Your task to perform on an android device: What's the weather? Image 0: 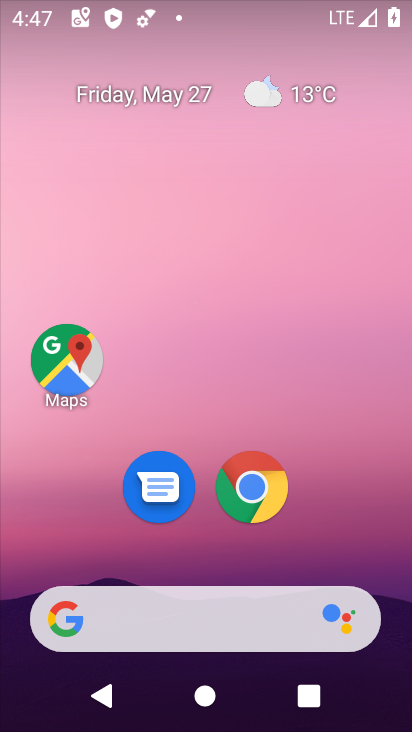
Step 0: click (348, 534)
Your task to perform on an android device: What's the weather? Image 1: 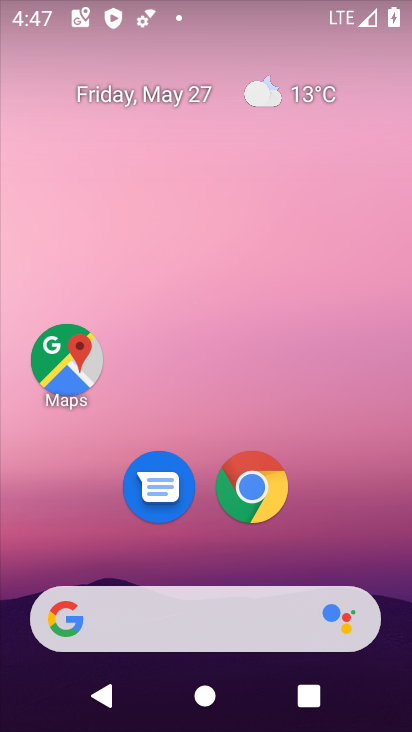
Step 1: click (313, 90)
Your task to perform on an android device: What's the weather? Image 2: 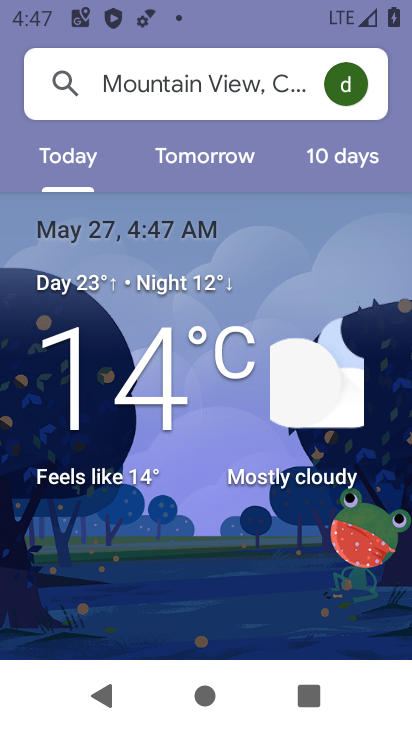
Step 2: press home button
Your task to perform on an android device: What's the weather? Image 3: 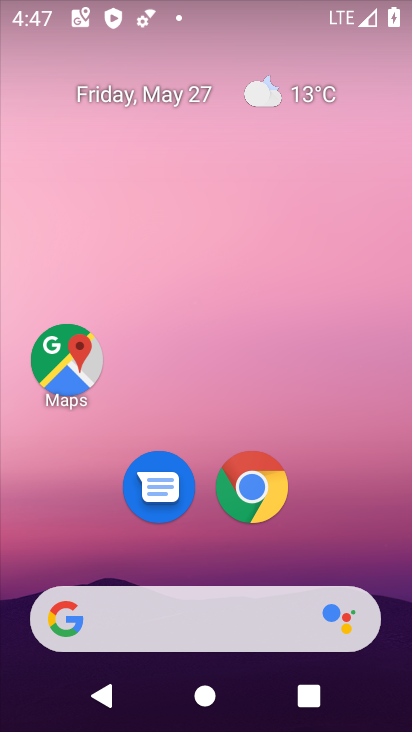
Step 3: click (288, 91)
Your task to perform on an android device: What's the weather? Image 4: 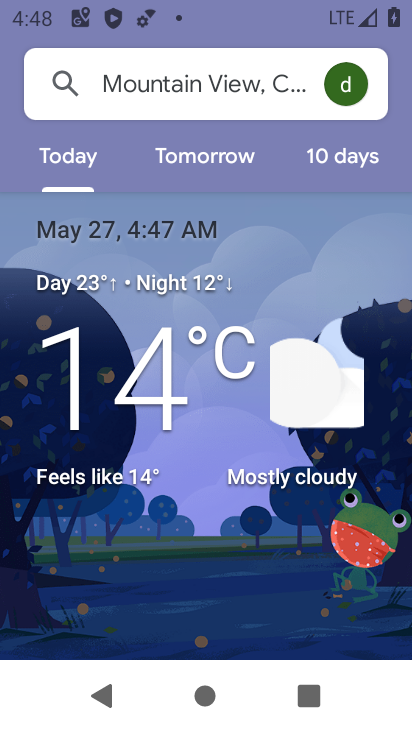
Step 4: task complete